Your task to perform on an android device: Open wifi settings Image 0: 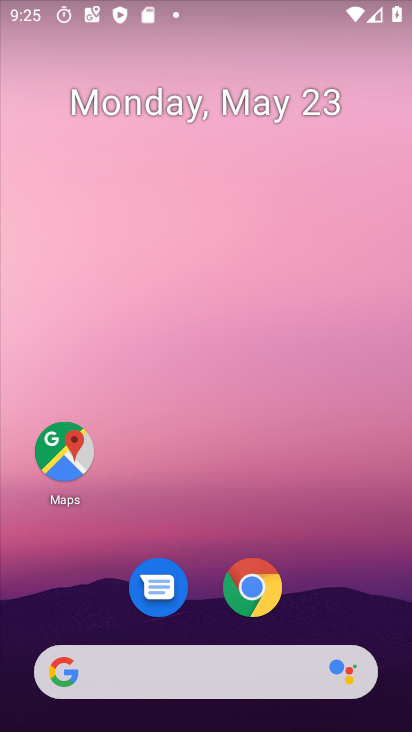
Step 0: drag from (298, 620) to (85, 166)
Your task to perform on an android device: Open wifi settings Image 1: 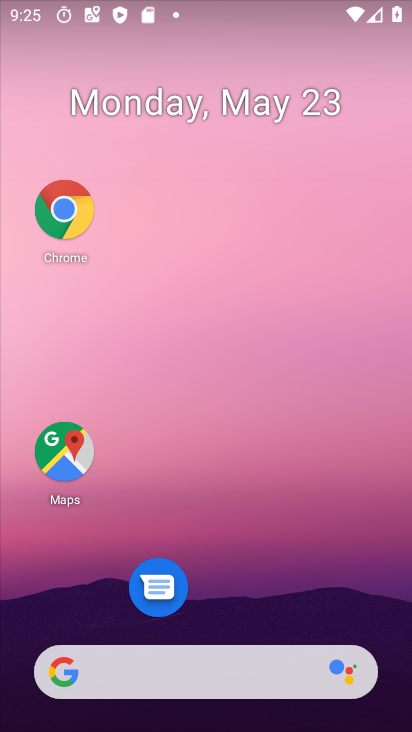
Step 1: drag from (319, 611) to (132, 175)
Your task to perform on an android device: Open wifi settings Image 2: 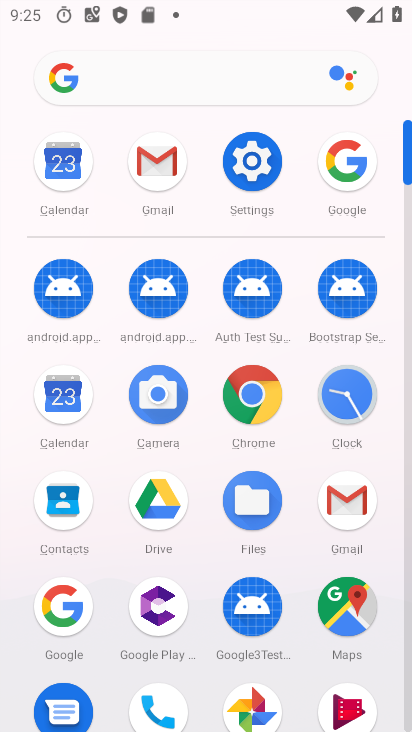
Step 2: click (242, 173)
Your task to perform on an android device: Open wifi settings Image 3: 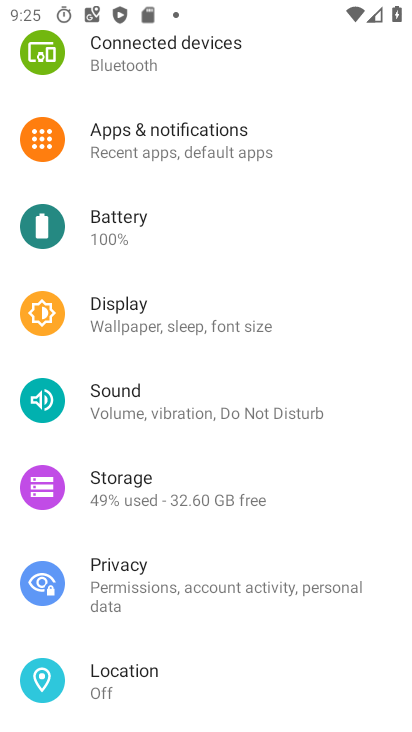
Step 3: drag from (151, 32) to (269, 421)
Your task to perform on an android device: Open wifi settings Image 4: 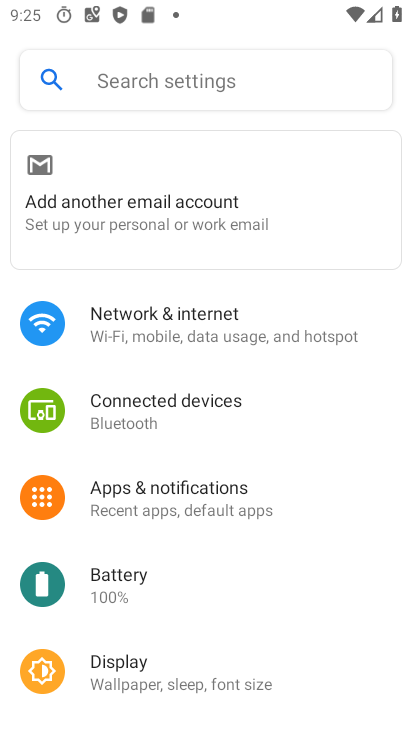
Step 4: click (219, 321)
Your task to perform on an android device: Open wifi settings Image 5: 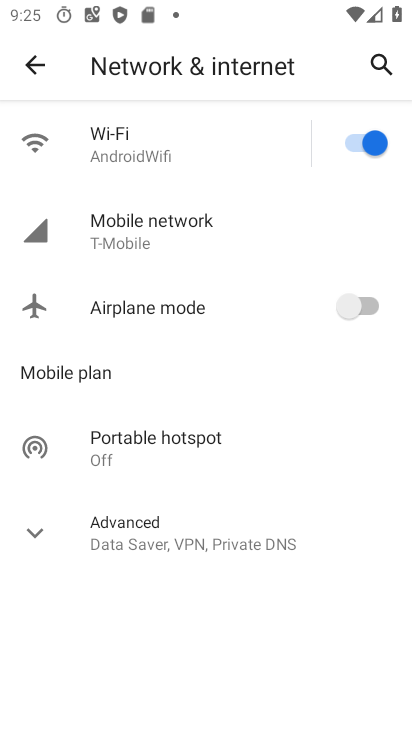
Step 5: click (111, 151)
Your task to perform on an android device: Open wifi settings Image 6: 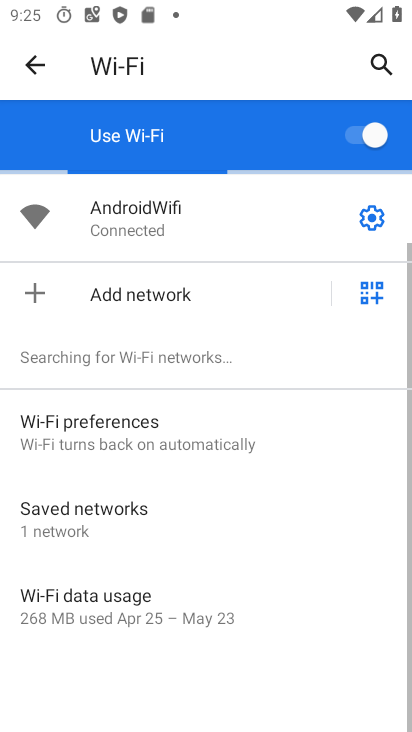
Step 6: drag from (290, 236) to (250, 555)
Your task to perform on an android device: Open wifi settings Image 7: 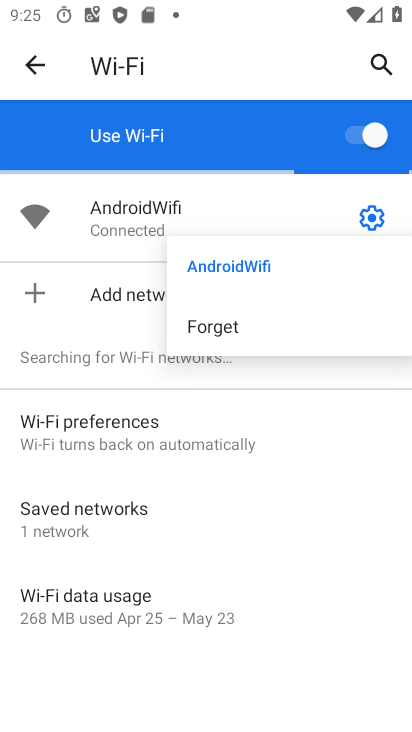
Step 7: click (329, 648)
Your task to perform on an android device: Open wifi settings Image 8: 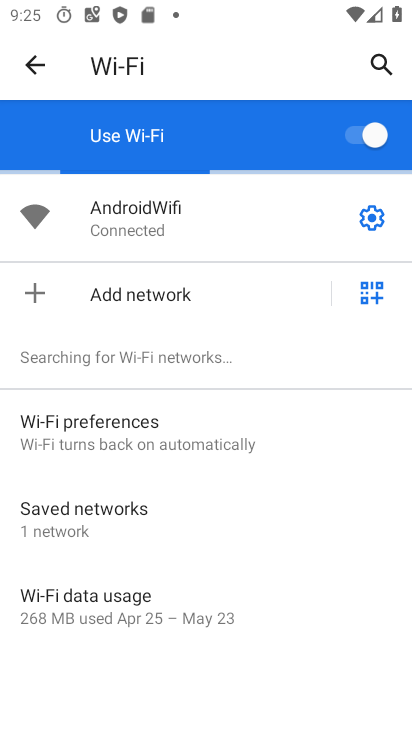
Step 8: click (329, 648)
Your task to perform on an android device: Open wifi settings Image 9: 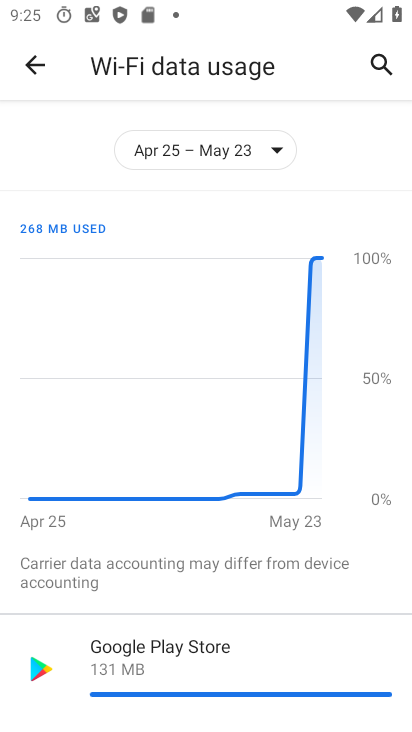
Step 9: click (37, 61)
Your task to perform on an android device: Open wifi settings Image 10: 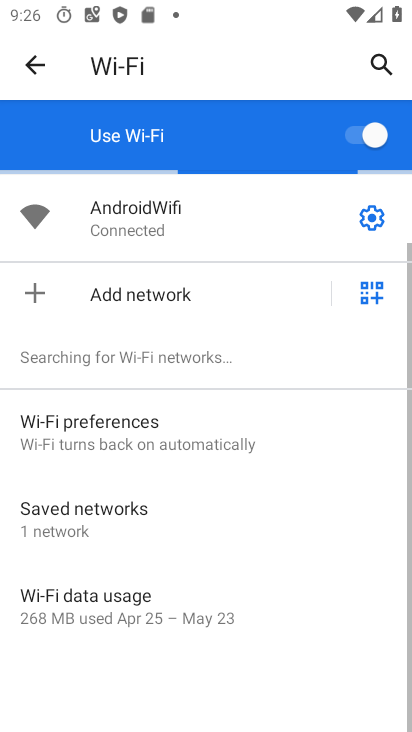
Step 10: task complete